Your task to perform on an android device: Open the Play Movies app and select the watchlist tab. Image 0: 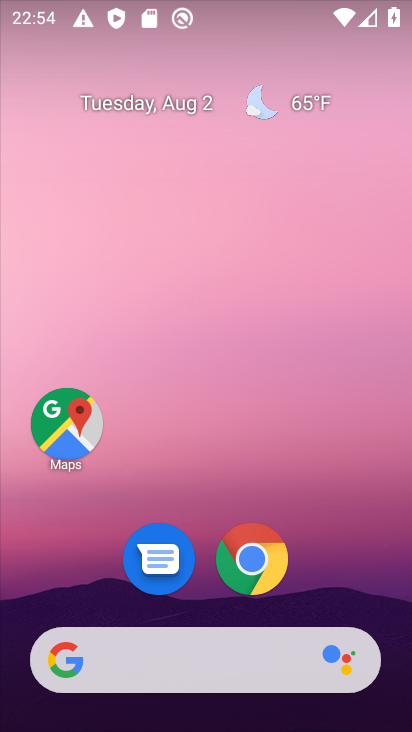
Step 0: drag from (277, 696) to (143, 204)
Your task to perform on an android device: Open the Play Movies app and select the watchlist tab. Image 1: 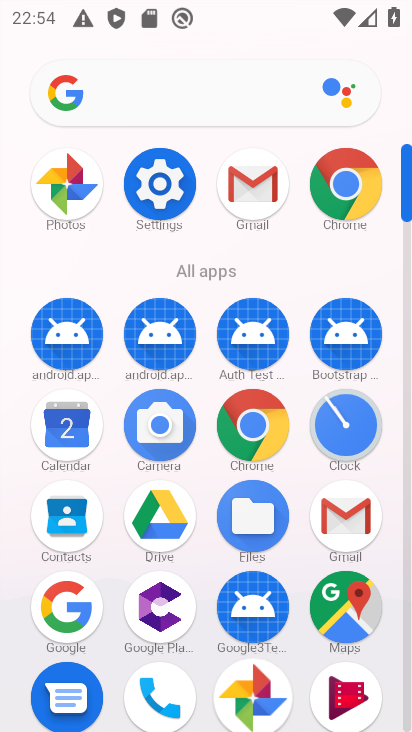
Step 1: click (242, 310)
Your task to perform on an android device: Open the Play Movies app and select the watchlist tab. Image 2: 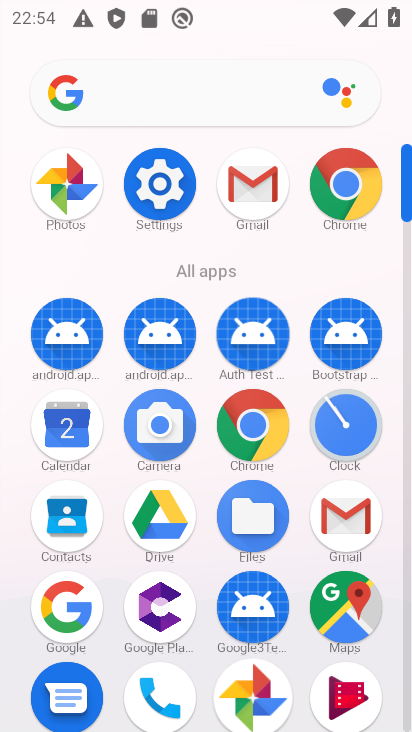
Step 2: drag from (235, 590) to (213, 334)
Your task to perform on an android device: Open the Play Movies app and select the watchlist tab. Image 3: 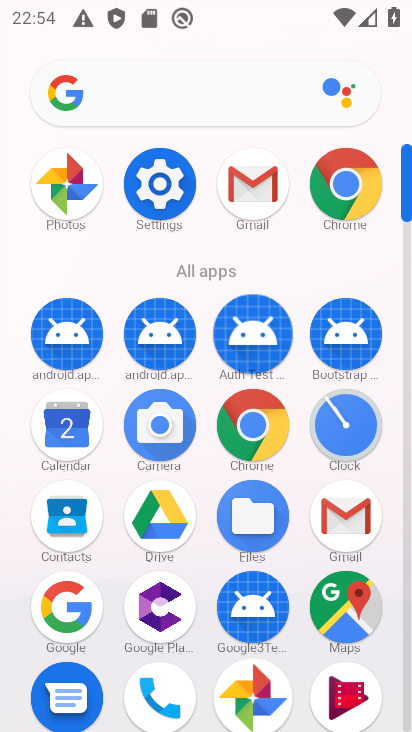
Step 3: drag from (228, 579) to (220, 303)
Your task to perform on an android device: Open the Play Movies app and select the watchlist tab. Image 4: 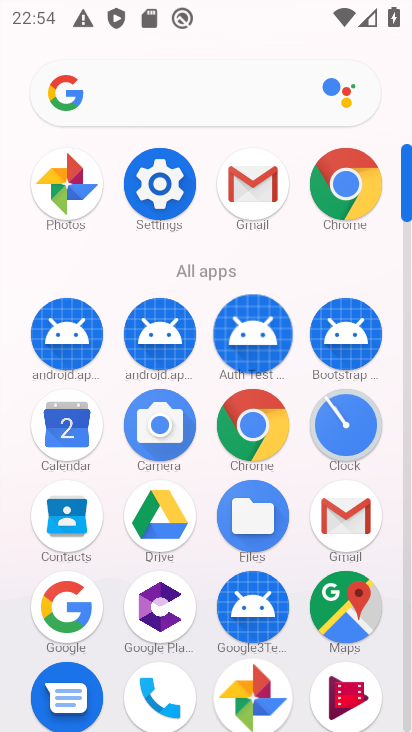
Step 4: drag from (267, 514) to (269, 299)
Your task to perform on an android device: Open the Play Movies app and select the watchlist tab. Image 5: 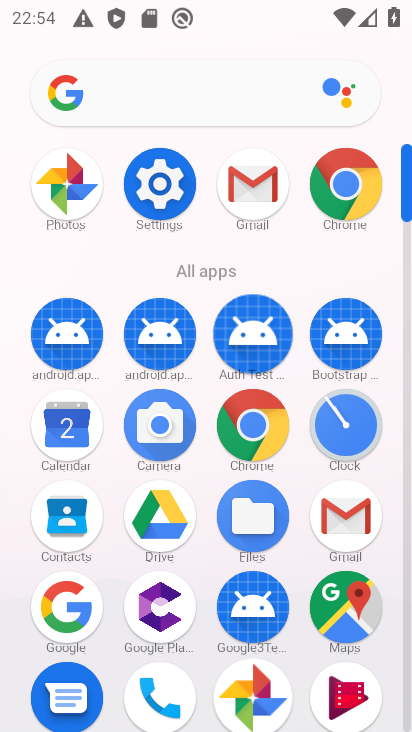
Step 5: drag from (321, 569) to (299, 313)
Your task to perform on an android device: Open the Play Movies app and select the watchlist tab. Image 6: 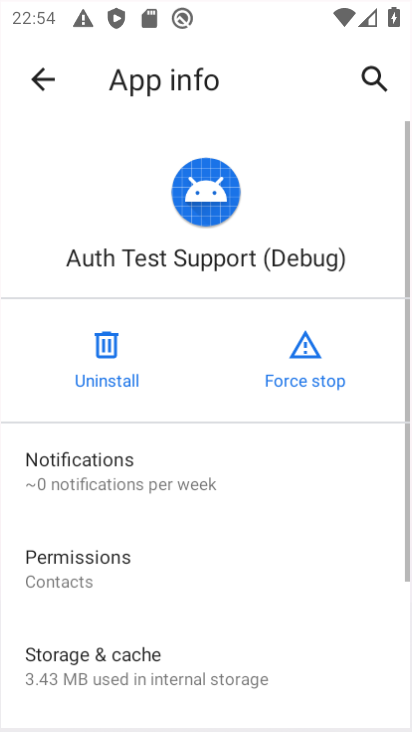
Step 6: drag from (215, 567) to (179, 347)
Your task to perform on an android device: Open the Play Movies app and select the watchlist tab. Image 7: 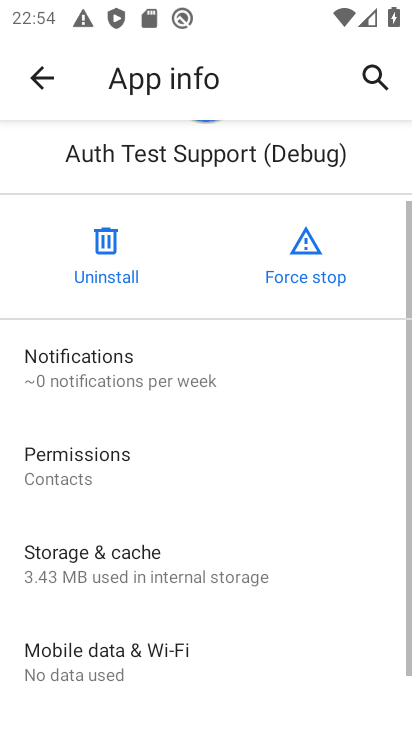
Step 7: click (36, 71)
Your task to perform on an android device: Open the Play Movies app and select the watchlist tab. Image 8: 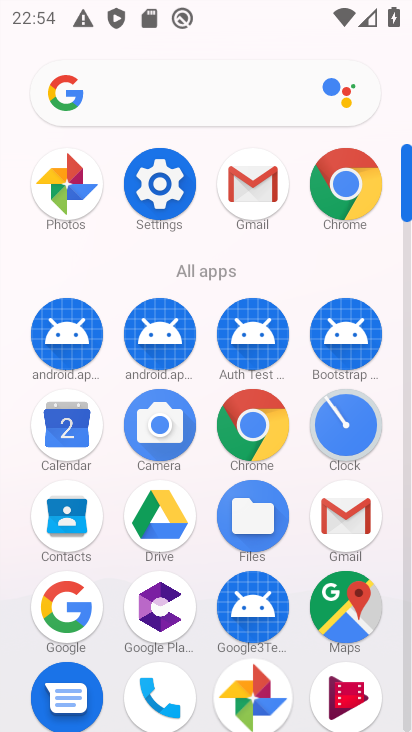
Step 8: drag from (228, 589) to (198, 350)
Your task to perform on an android device: Open the Play Movies app and select the watchlist tab. Image 9: 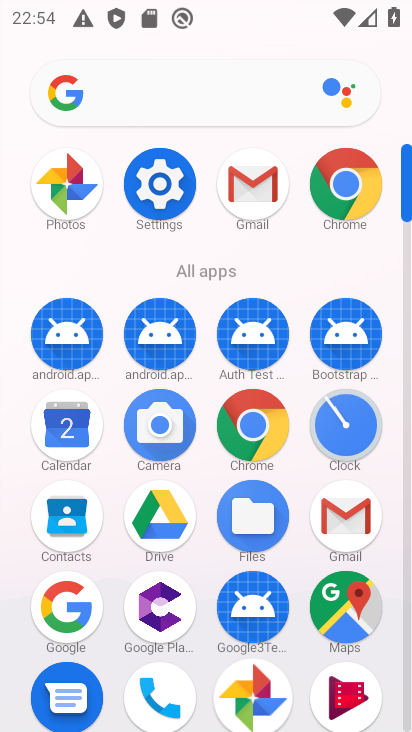
Step 9: drag from (160, 546) to (160, 391)
Your task to perform on an android device: Open the Play Movies app and select the watchlist tab. Image 10: 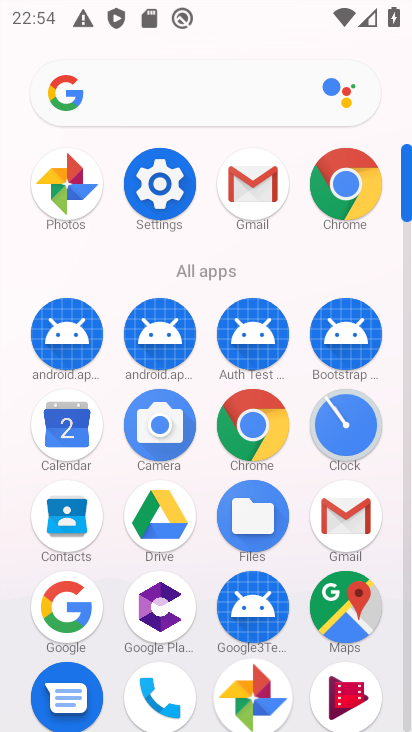
Step 10: drag from (238, 547) to (247, 349)
Your task to perform on an android device: Open the Play Movies app and select the watchlist tab. Image 11: 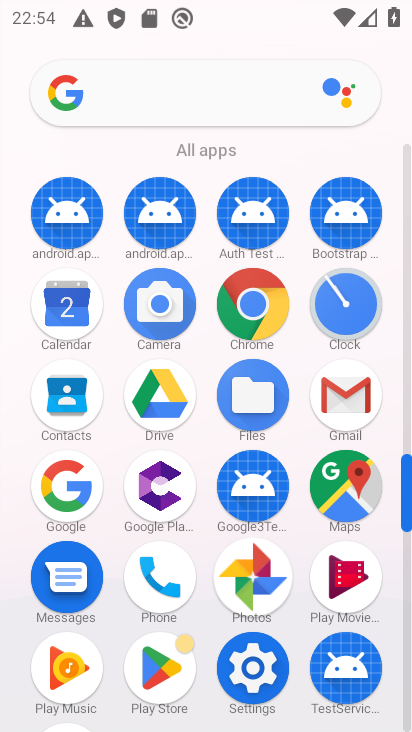
Step 11: drag from (312, 521) to (288, 290)
Your task to perform on an android device: Open the Play Movies app and select the watchlist tab. Image 12: 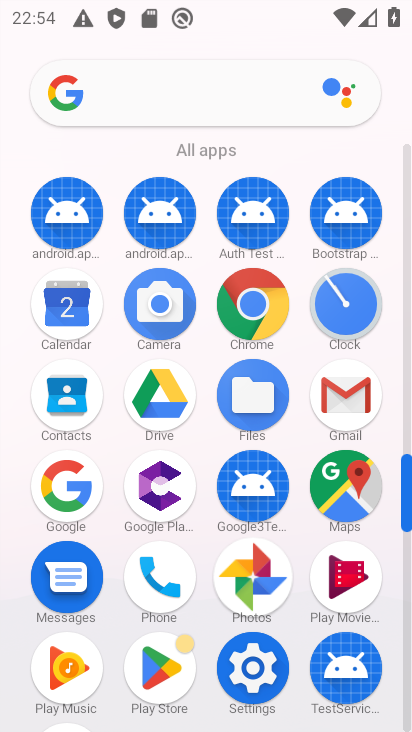
Step 12: drag from (194, 355) to (268, 694)
Your task to perform on an android device: Open the Play Movies app and select the watchlist tab. Image 13: 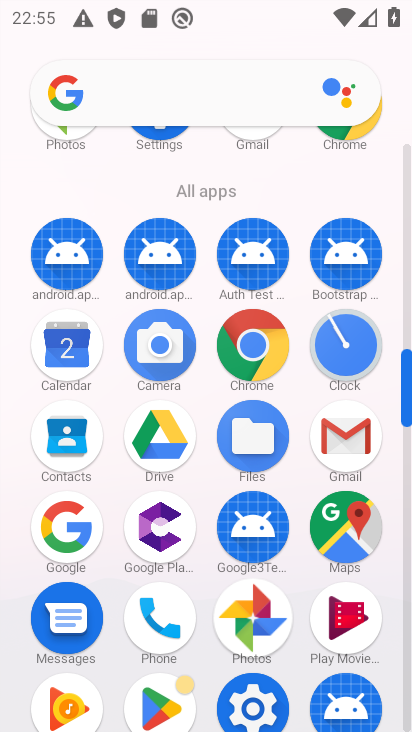
Step 13: drag from (257, 668) to (206, 397)
Your task to perform on an android device: Open the Play Movies app and select the watchlist tab. Image 14: 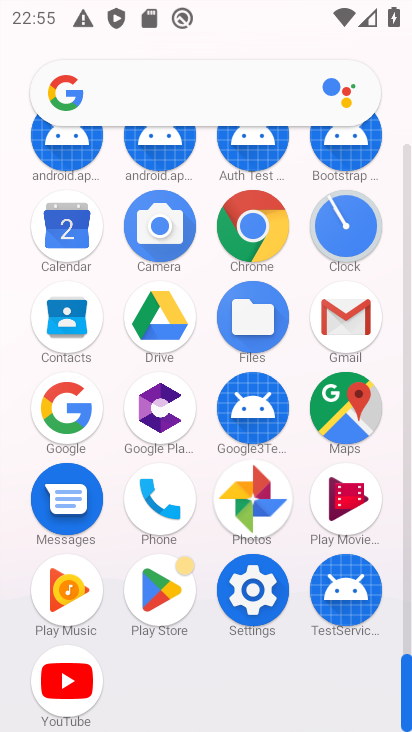
Step 14: click (349, 491)
Your task to perform on an android device: Open the Play Movies app and select the watchlist tab. Image 15: 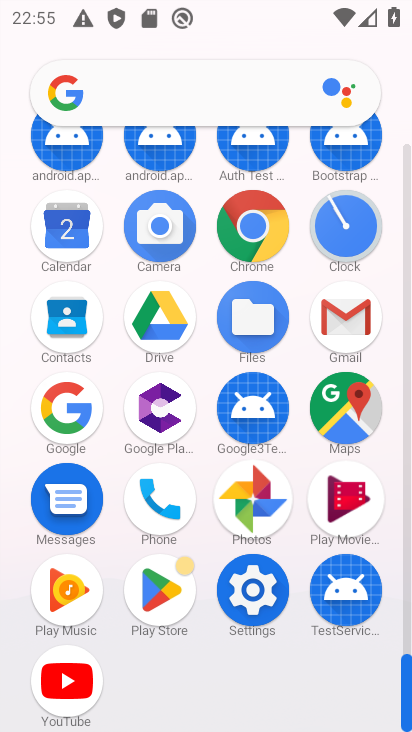
Step 15: click (349, 491)
Your task to perform on an android device: Open the Play Movies app and select the watchlist tab. Image 16: 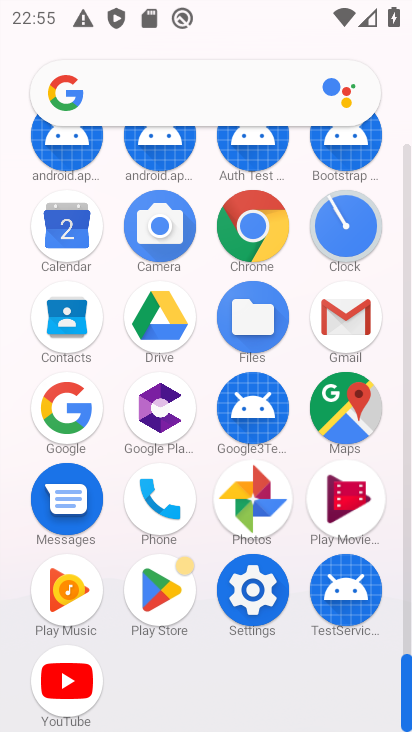
Step 16: click (349, 491)
Your task to perform on an android device: Open the Play Movies app and select the watchlist tab. Image 17: 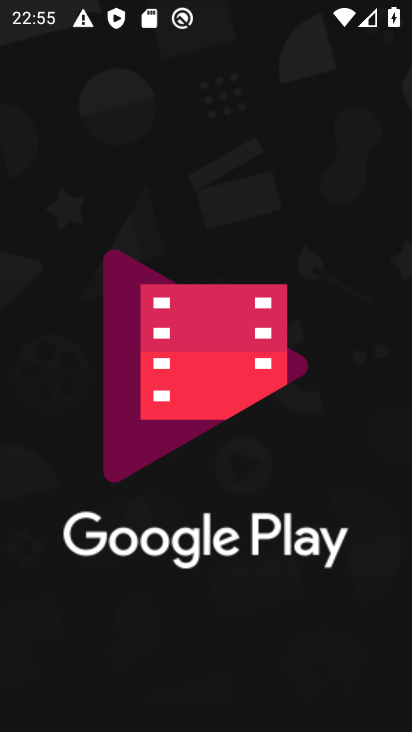
Step 17: drag from (232, 549) to (181, 234)
Your task to perform on an android device: Open the Play Movies app and select the watchlist tab. Image 18: 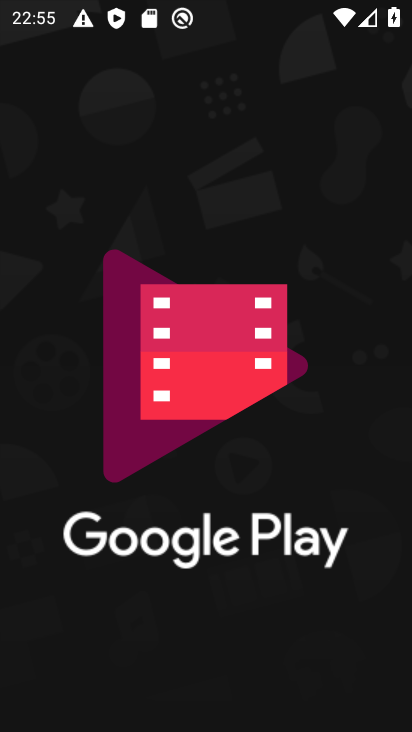
Step 18: drag from (217, 535) to (181, 327)
Your task to perform on an android device: Open the Play Movies app and select the watchlist tab. Image 19: 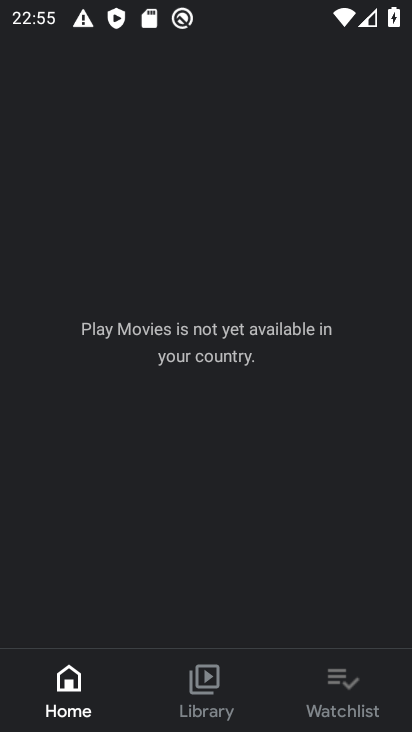
Step 19: drag from (214, 371) to (198, 212)
Your task to perform on an android device: Open the Play Movies app and select the watchlist tab. Image 20: 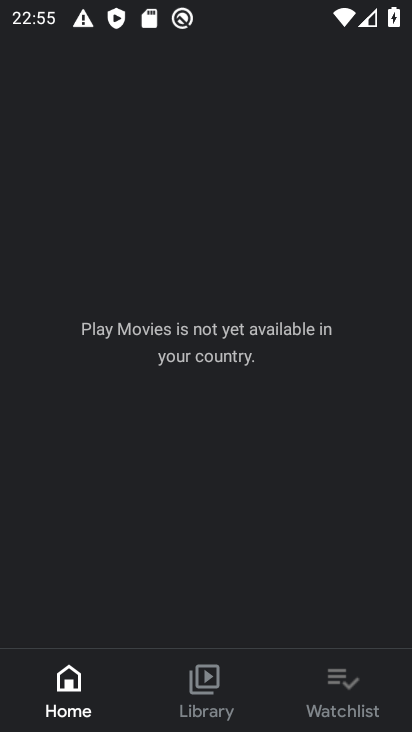
Step 20: click (344, 682)
Your task to perform on an android device: Open the Play Movies app and select the watchlist tab. Image 21: 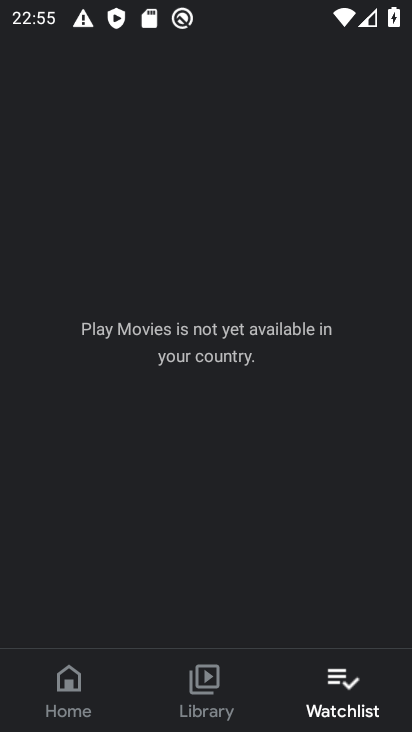
Step 21: click (343, 691)
Your task to perform on an android device: Open the Play Movies app and select the watchlist tab. Image 22: 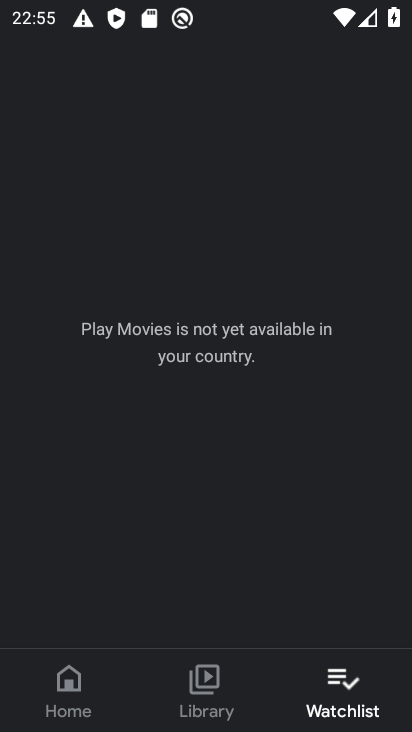
Step 22: task complete